Your task to perform on an android device: Open accessibility settings Image 0: 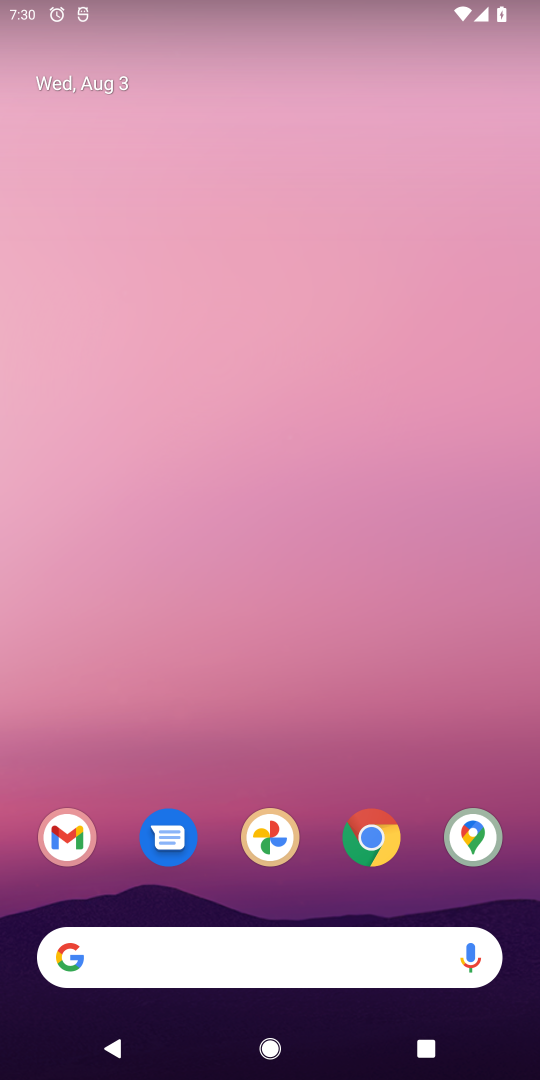
Step 0: press home button
Your task to perform on an android device: Open accessibility settings Image 1: 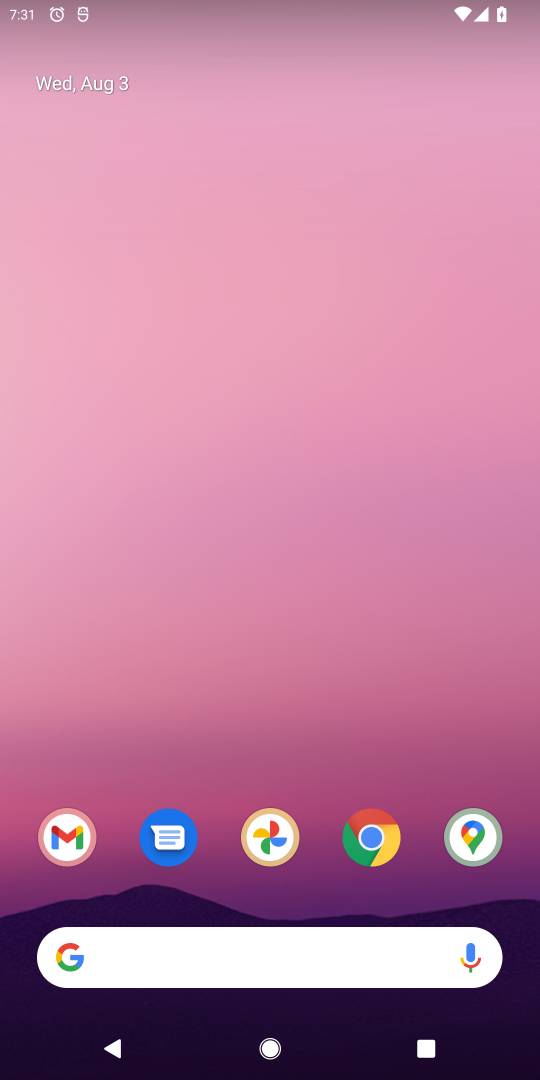
Step 1: drag from (368, 736) to (538, 118)
Your task to perform on an android device: Open accessibility settings Image 2: 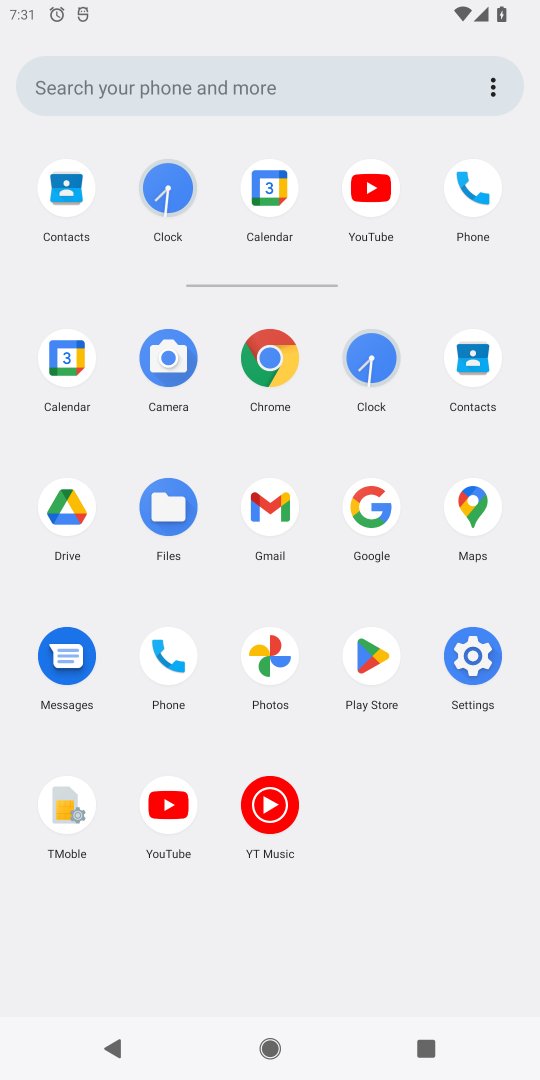
Step 2: click (477, 648)
Your task to perform on an android device: Open accessibility settings Image 3: 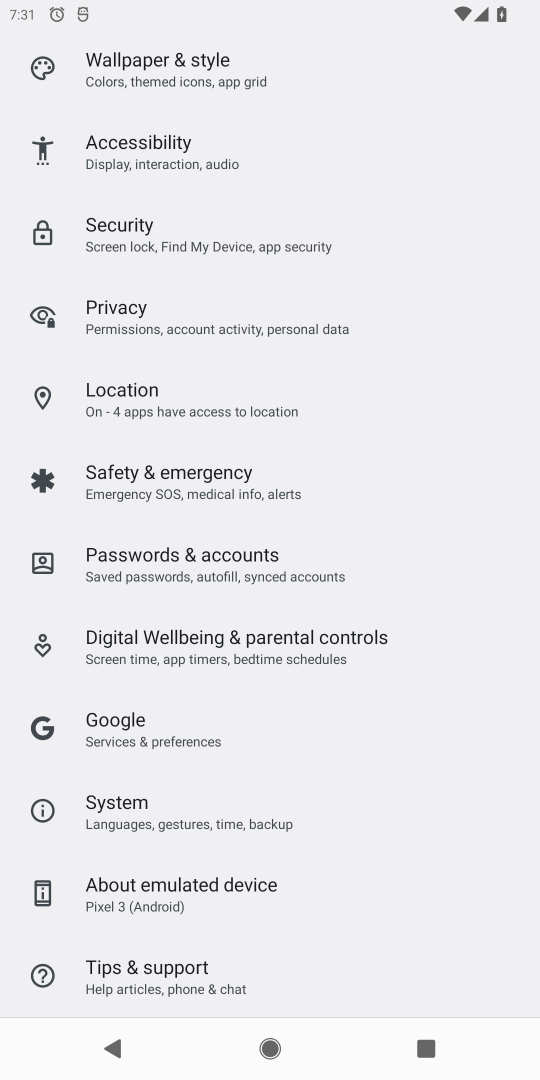
Step 3: click (148, 147)
Your task to perform on an android device: Open accessibility settings Image 4: 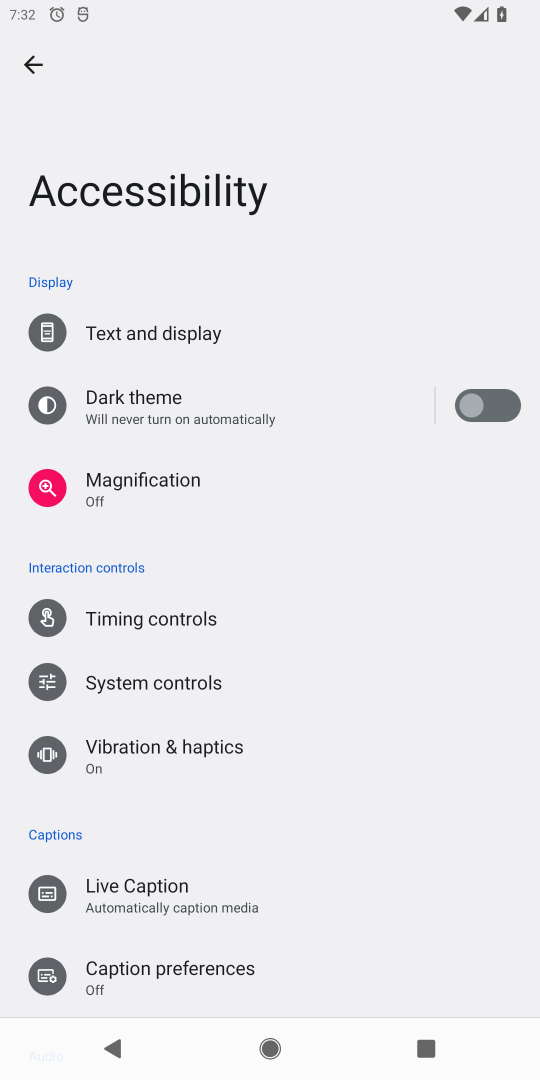
Step 4: task complete